Your task to perform on an android device: Open settings Image 0: 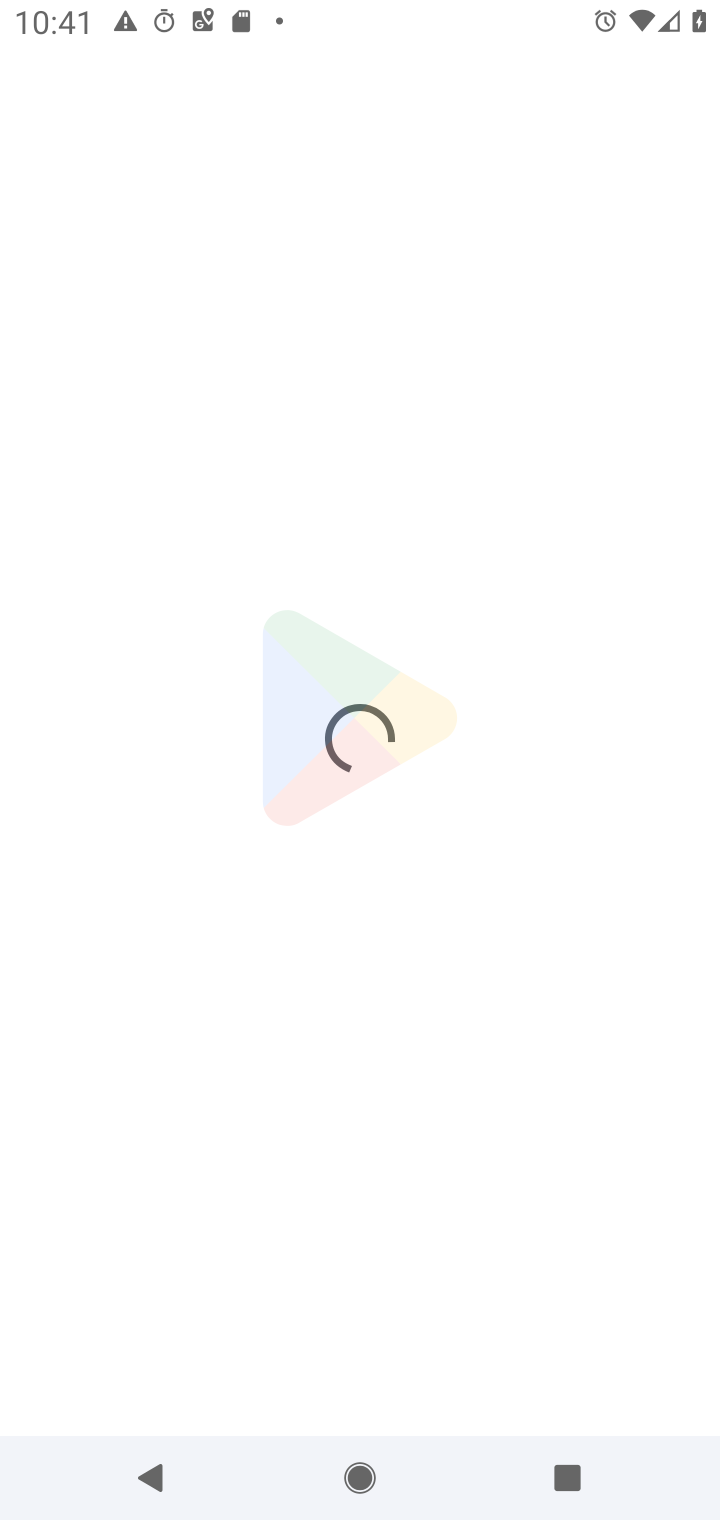
Step 0: press home button
Your task to perform on an android device: Open settings Image 1: 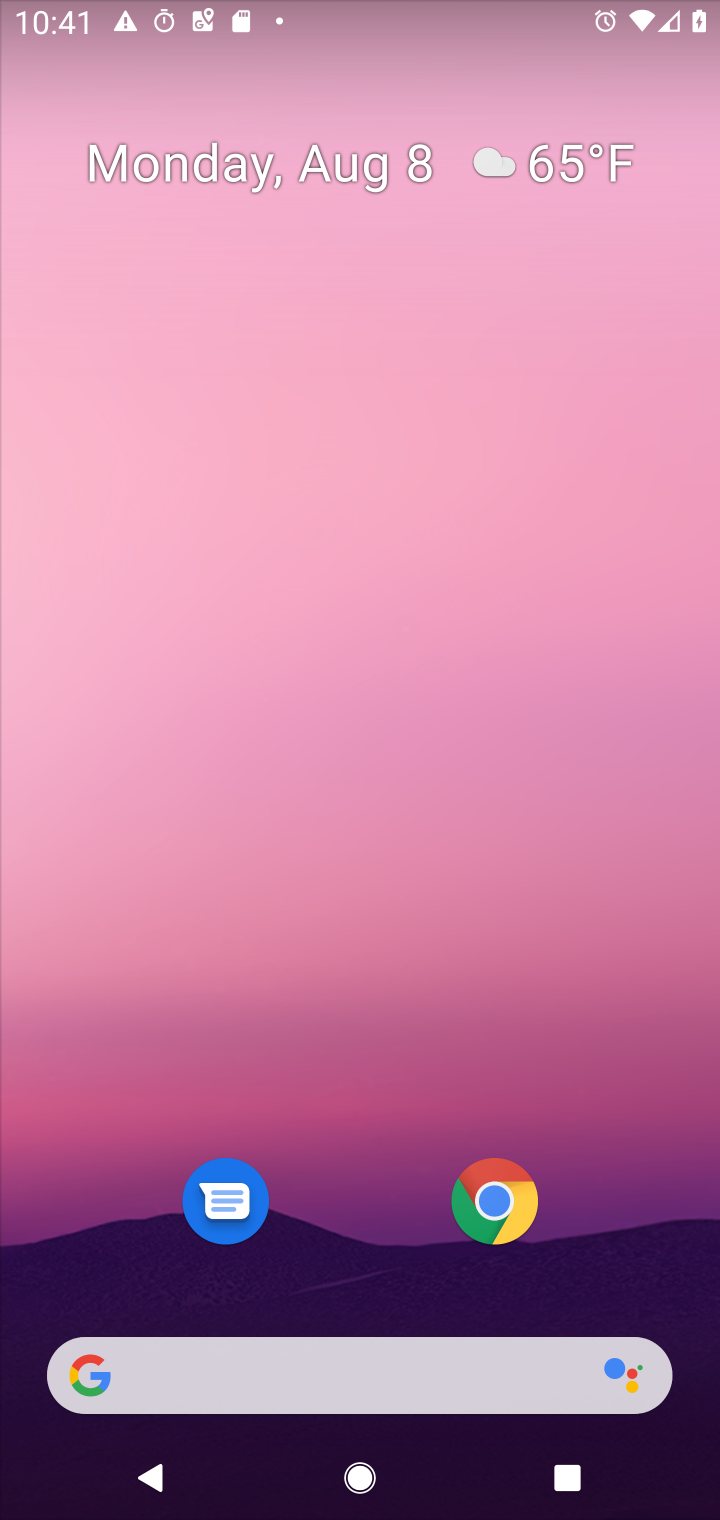
Step 1: drag from (385, 1089) to (367, 353)
Your task to perform on an android device: Open settings Image 2: 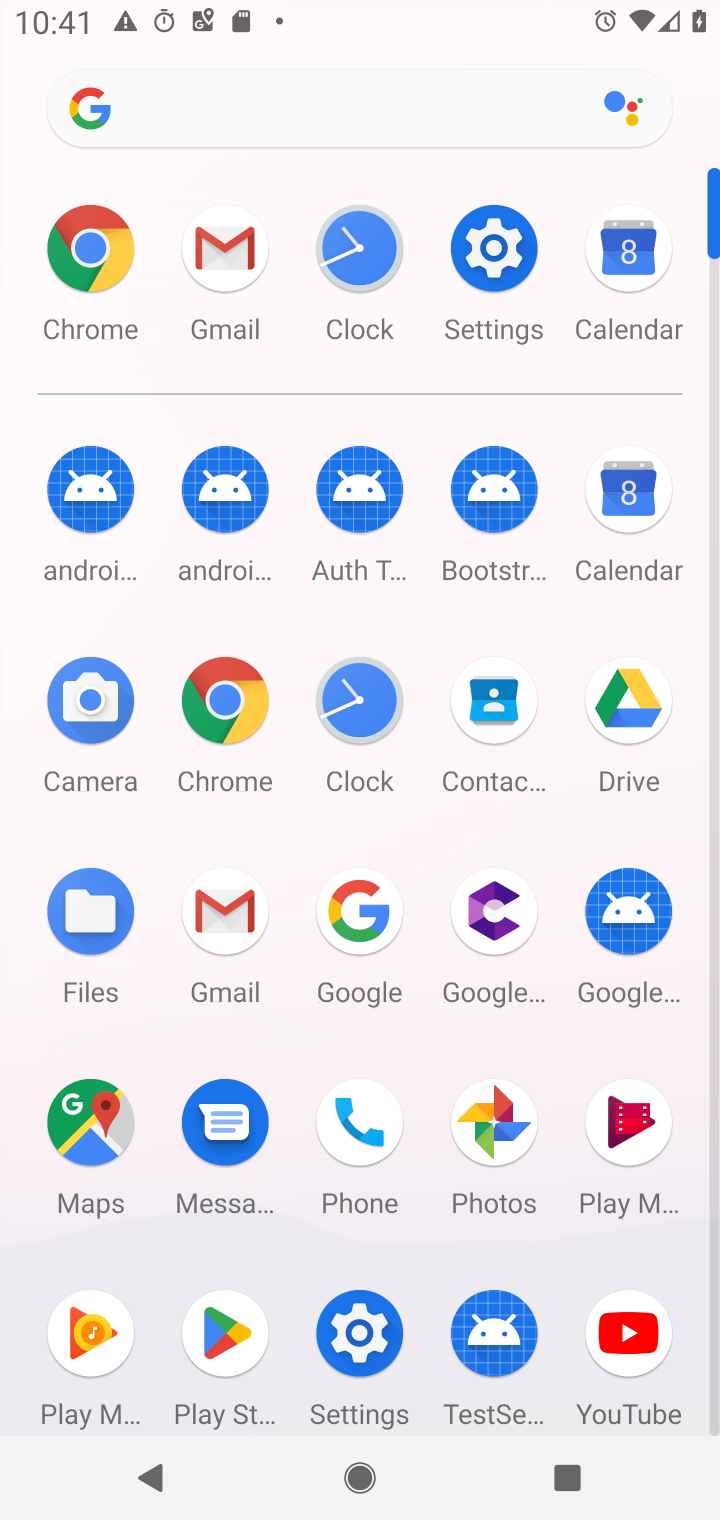
Step 2: click (499, 262)
Your task to perform on an android device: Open settings Image 3: 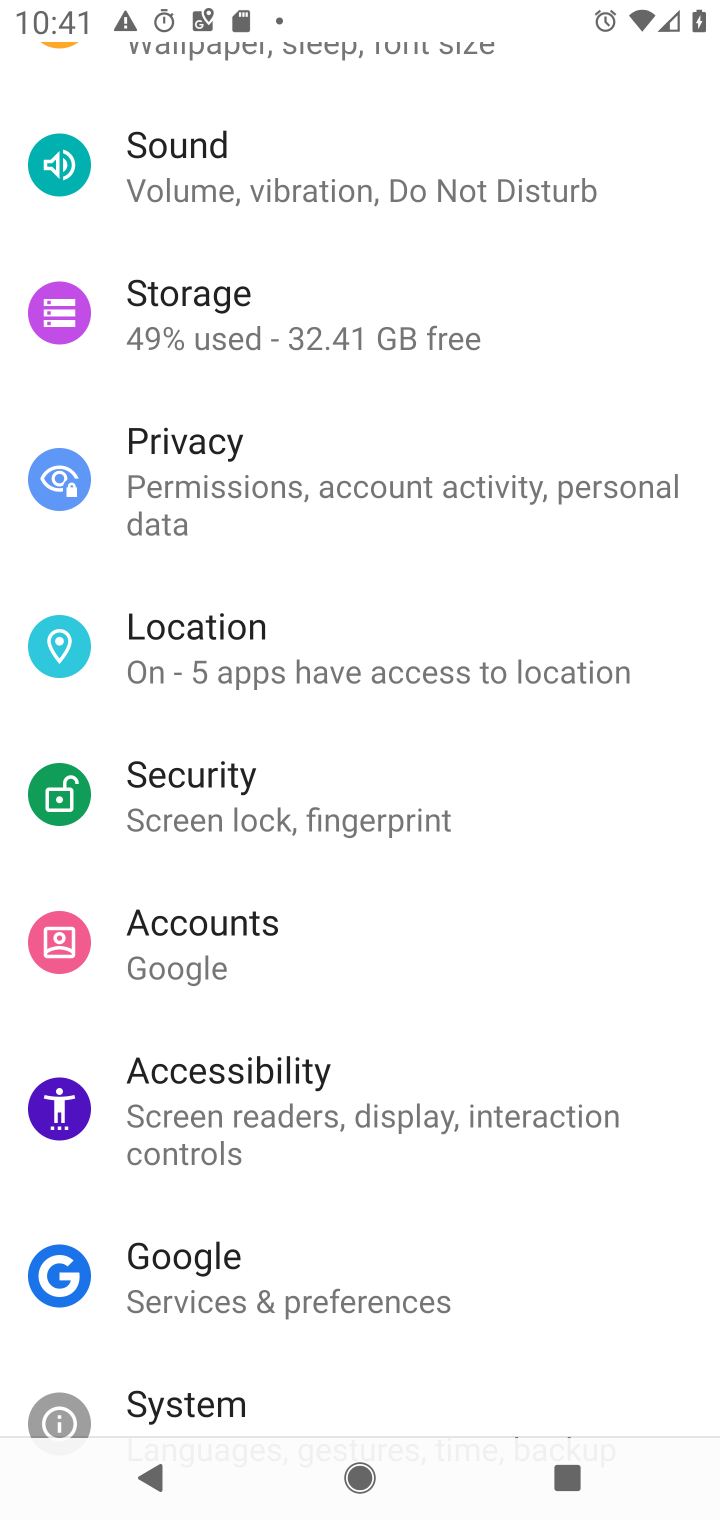
Step 3: task complete